Your task to perform on an android device: Show me the alarms in the clock app Image 0: 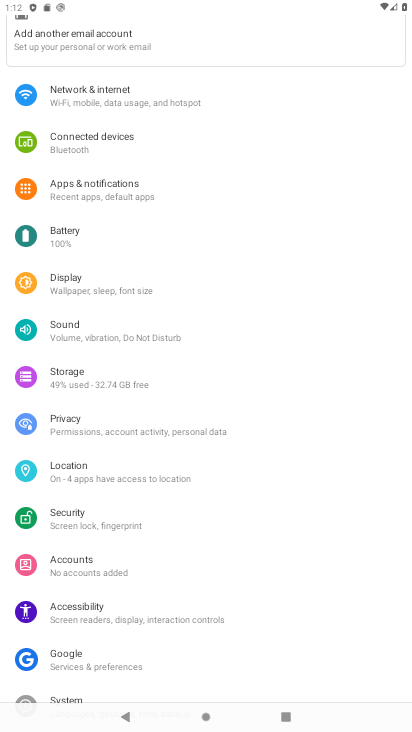
Step 0: press home button
Your task to perform on an android device: Show me the alarms in the clock app Image 1: 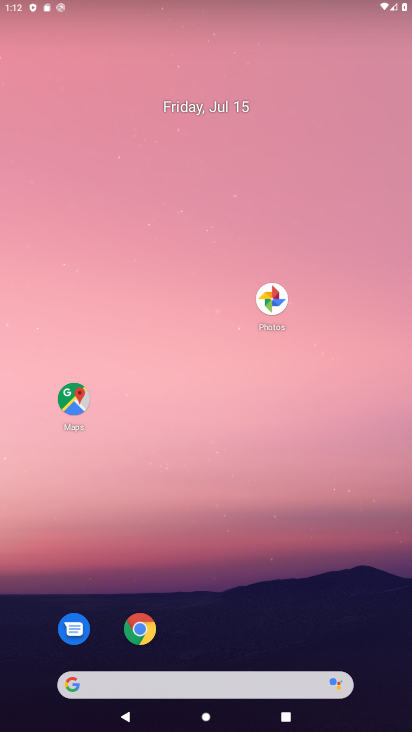
Step 1: drag from (237, 641) to (224, 221)
Your task to perform on an android device: Show me the alarms in the clock app Image 2: 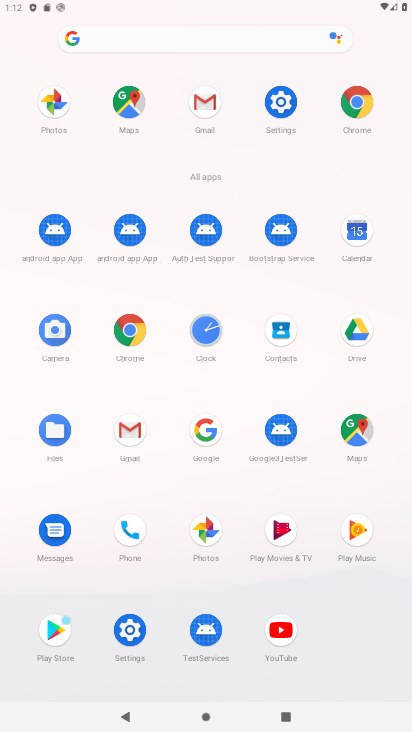
Step 2: click (208, 331)
Your task to perform on an android device: Show me the alarms in the clock app Image 3: 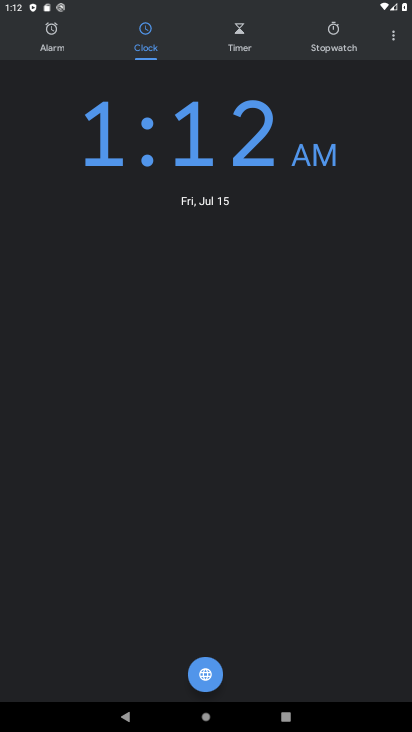
Step 3: click (399, 31)
Your task to perform on an android device: Show me the alarms in the clock app Image 4: 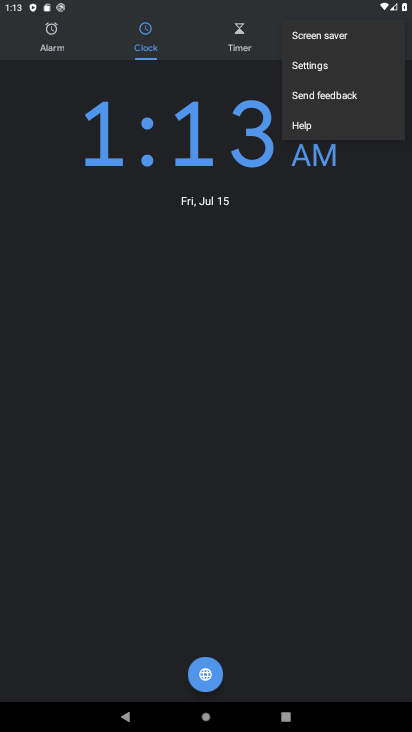
Step 4: click (315, 68)
Your task to perform on an android device: Show me the alarms in the clock app Image 5: 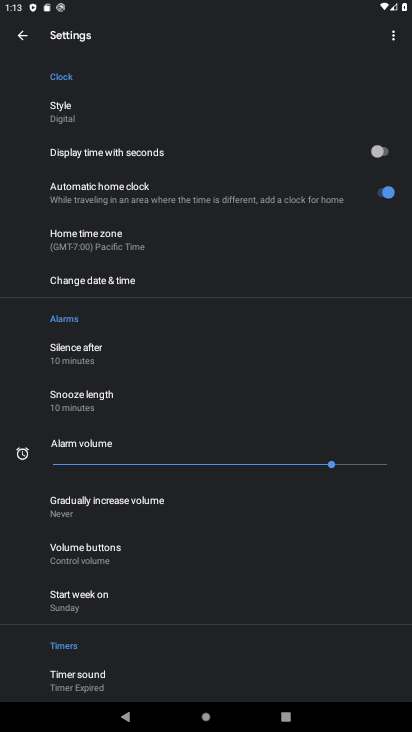
Step 5: click (27, 29)
Your task to perform on an android device: Show me the alarms in the clock app Image 6: 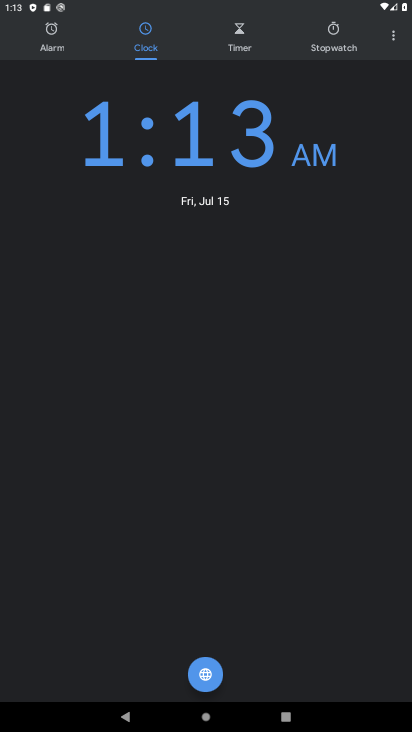
Step 6: click (50, 48)
Your task to perform on an android device: Show me the alarms in the clock app Image 7: 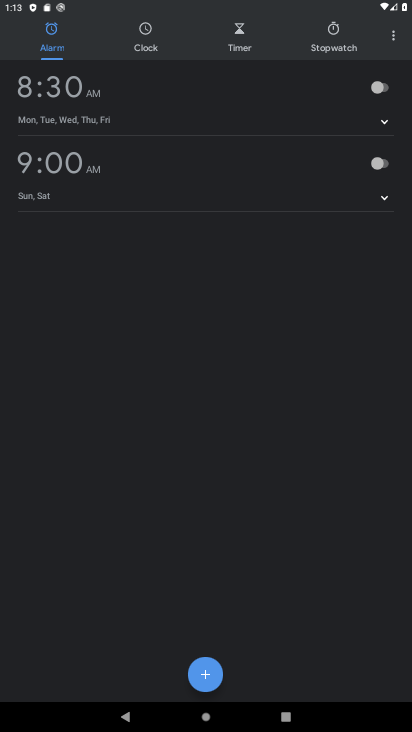
Step 7: task complete